Your task to perform on an android device: Open notification settings Image 0: 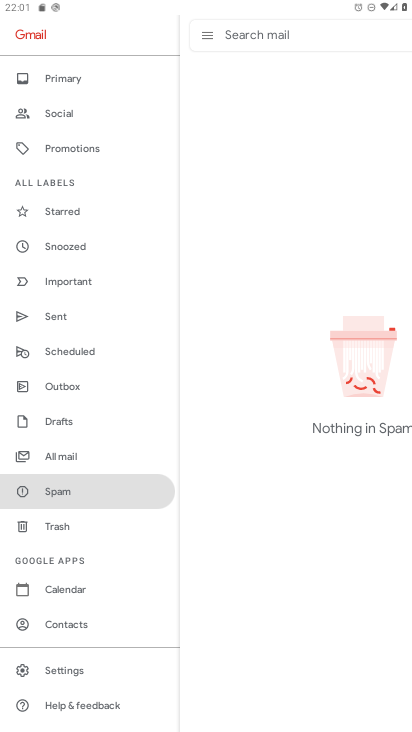
Step 0: click (64, 663)
Your task to perform on an android device: Open notification settings Image 1: 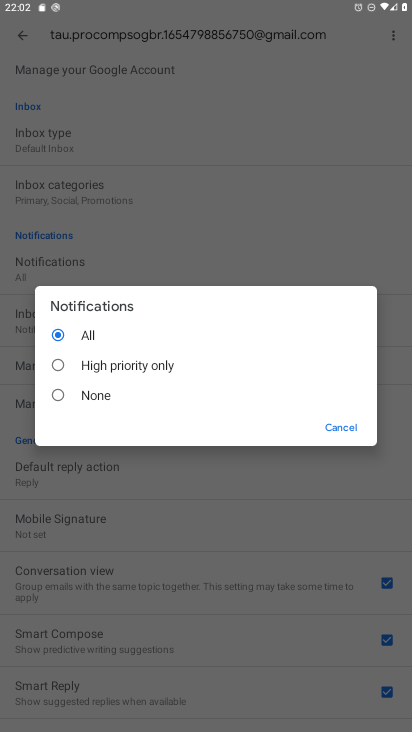
Step 1: task complete